Your task to perform on an android device: open wifi settings Image 0: 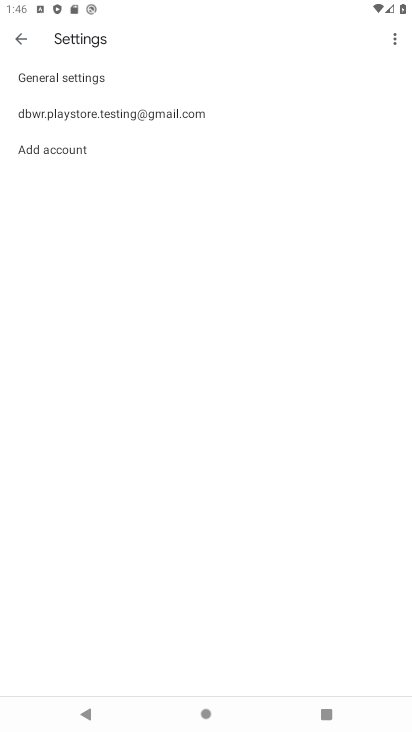
Step 0: press home button
Your task to perform on an android device: open wifi settings Image 1: 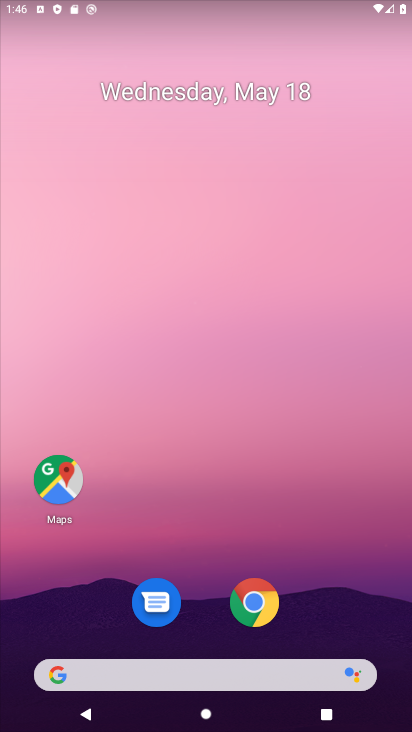
Step 1: drag from (276, 698) to (276, 252)
Your task to perform on an android device: open wifi settings Image 2: 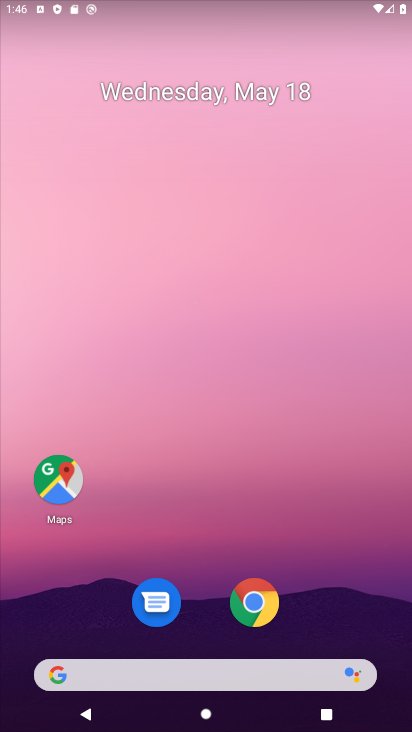
Step 2: drag from (267, 712) to (293, 47)
Your task to perform on an android device: open wifi settings Image 3: 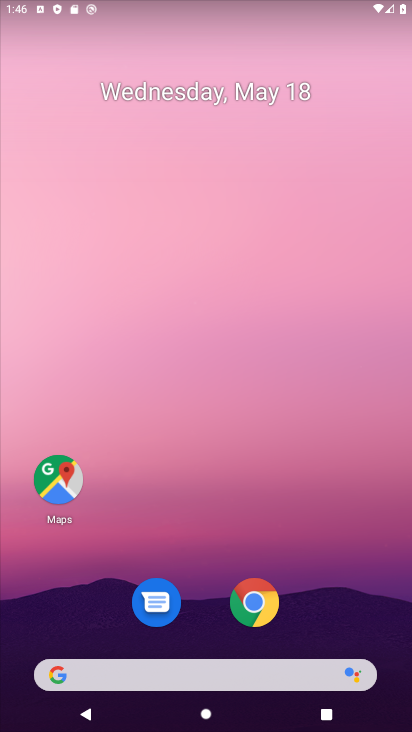
Step 3: drag from (270, 686) to (271, 29)
Your task to perform on an android device: open wifi settings Image 4: 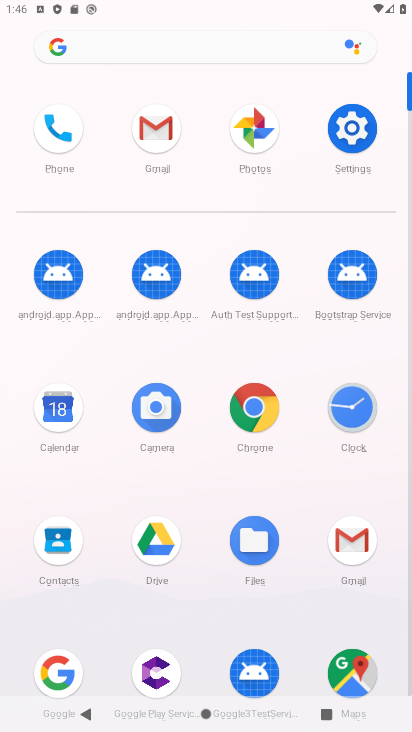
Step 4: click (361, 129)
Your task to perform on an android device: open wifi settings Image 5: 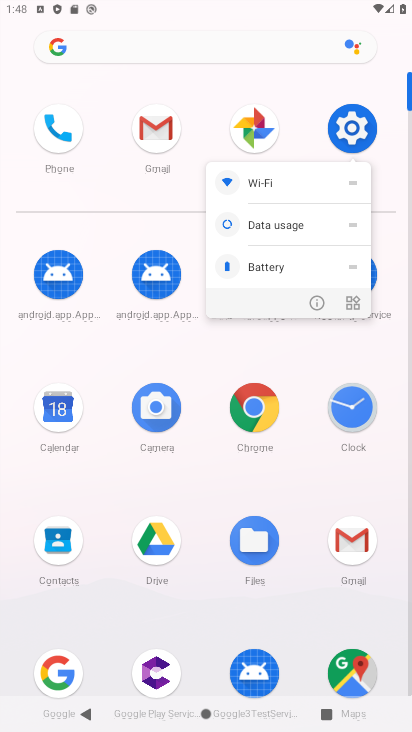
Step 5: click (359, 121)
Your task to perform on an android device: open wifi settings Image 6: 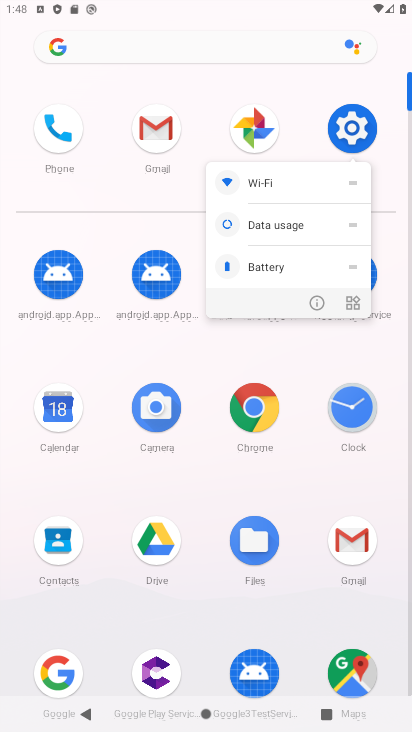
Step 6: click (359, 121)
Your task to perform on an android device: open wifi settings Image 7: 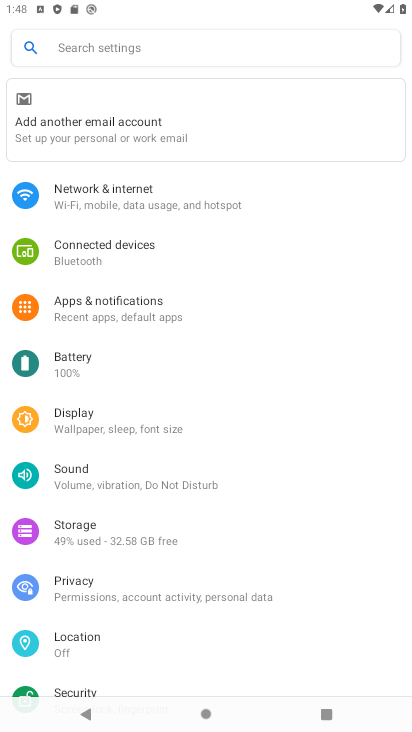
Step 7: click (158, 195)
Your task to perform on an android device: open wifi settings Image 8: 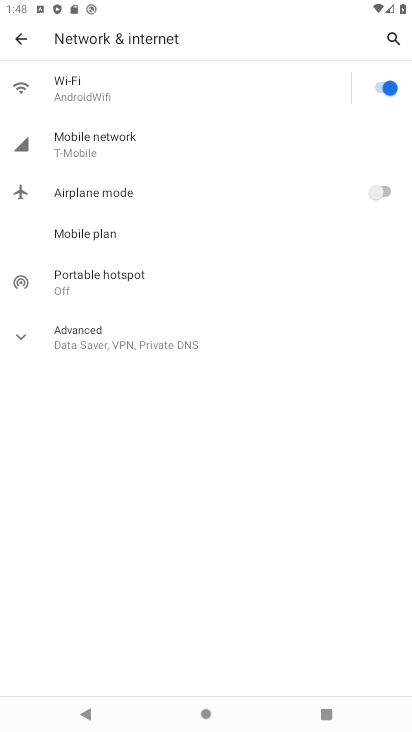
Step 8: click (276, 93)
Your task to perform on an android device: open wifi settings Image 9: 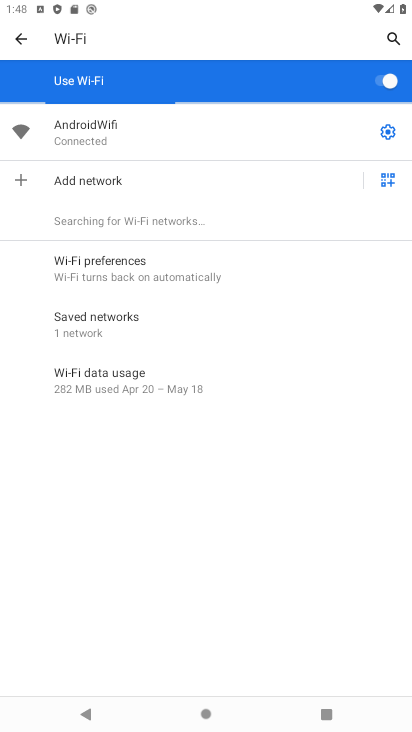
Step 9: click (387, 132)
Your task to perform on an android device: open wifi settings Image 10: 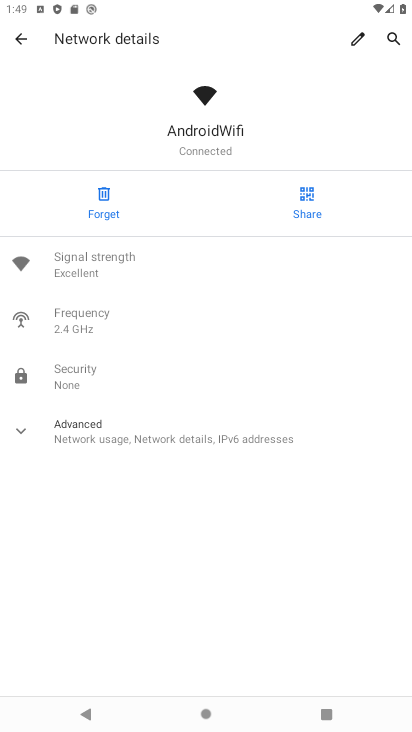
Step 10: task complete